Your task to perform on an android device: Open Google Image 0: 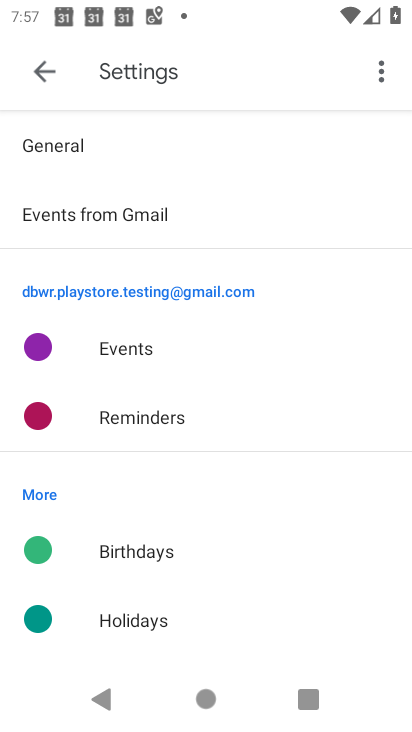
Step 0: press home button
Your task to perform on an android device: Open Google Image 1: 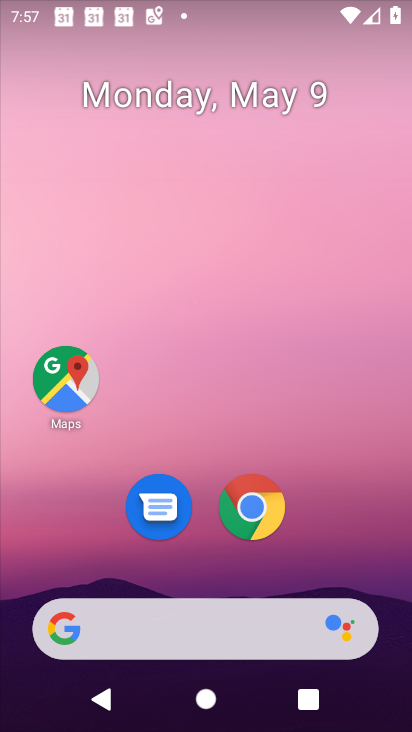
Step 1: drag from (214, 661) to (265, 272)
Your task to perform on an android device: Open Google Image 2: 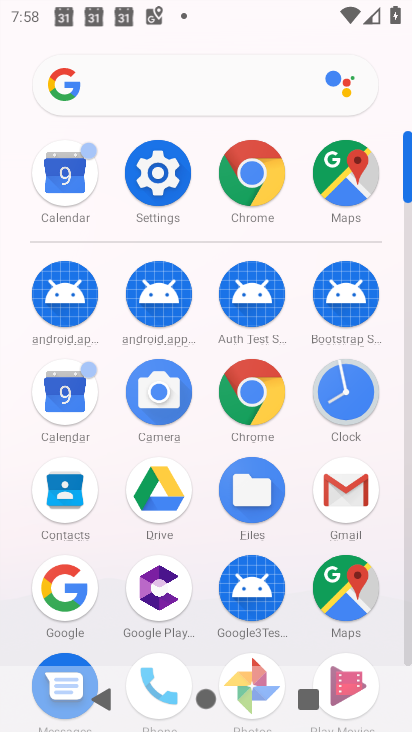
Step 2: click (66, 96)
Your task to perform on an android device: Open Google Image 3: 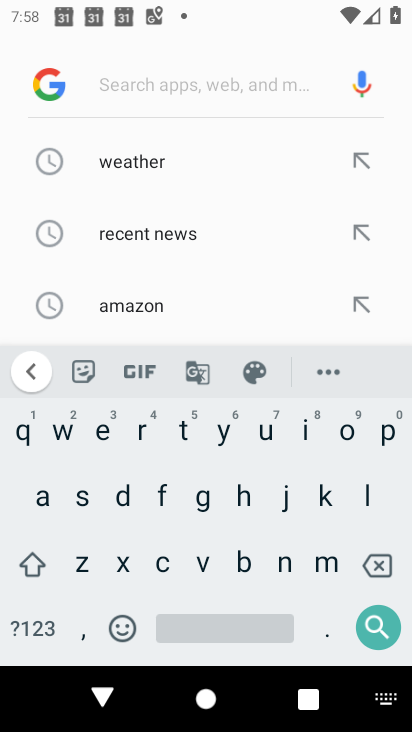
Step 3: click (43, 77)
Your task to perform on an android device: Open Google Image 4: 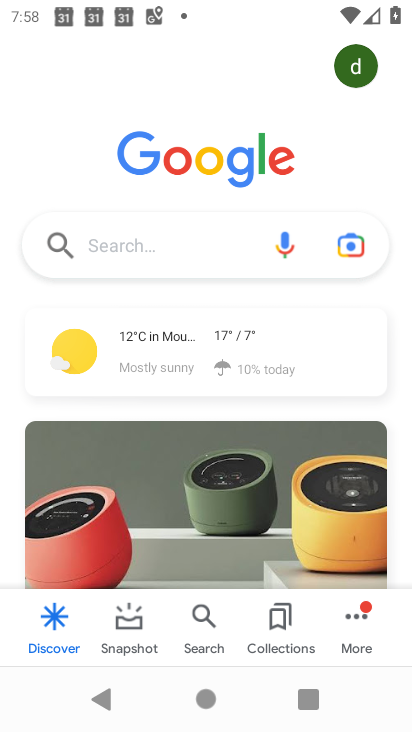
Step 4: task complete